Your task to perform on an android device: turn on improve location accuracy Image 0: 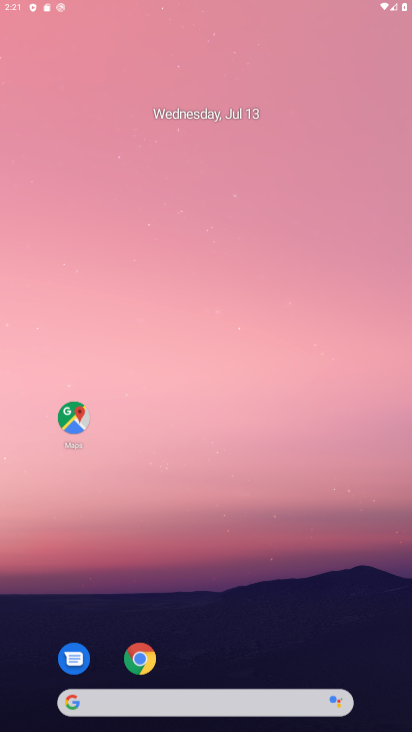
Step 0: press home button
Your task to perform on an android device: turn on improve location accuracy Image 1: 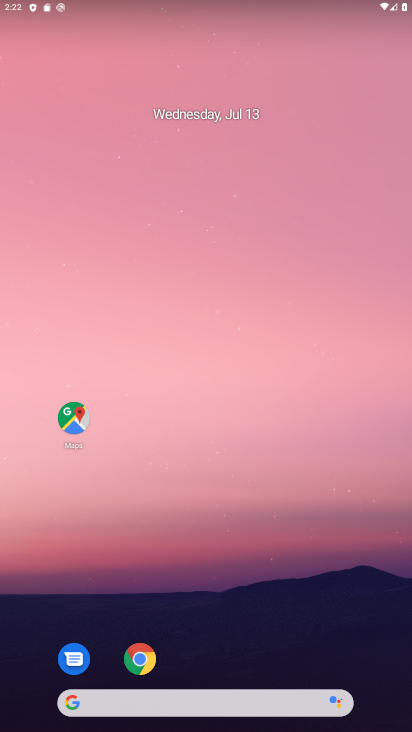
Step 1: drag from (228, 661) to (240, 160)
Your task to perform on an android device: turn on improve location accuracy Image 2: 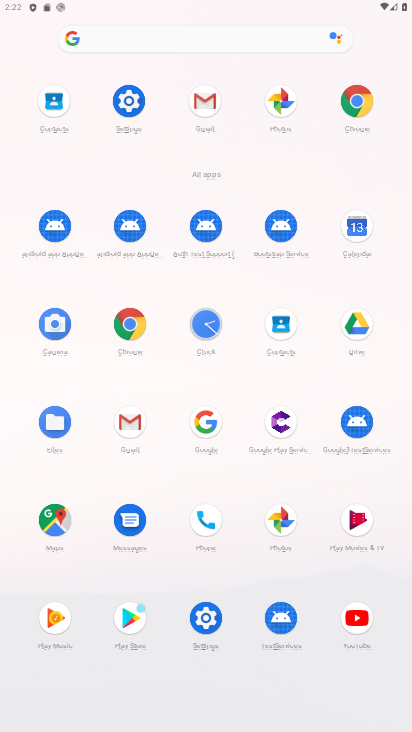
Step 2: click (130, 99)
Your task to perform on an android device: turn on improve location accuracy Image 3: 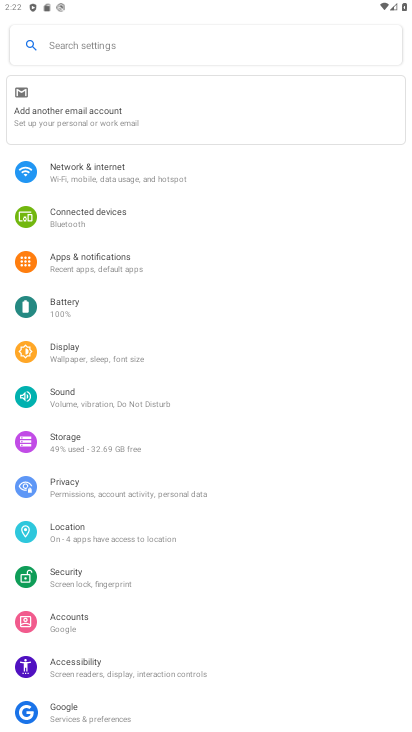
Step 3: click (95, 524)
Your task to perform on an android device: turn on improve location accuracy Image 4: 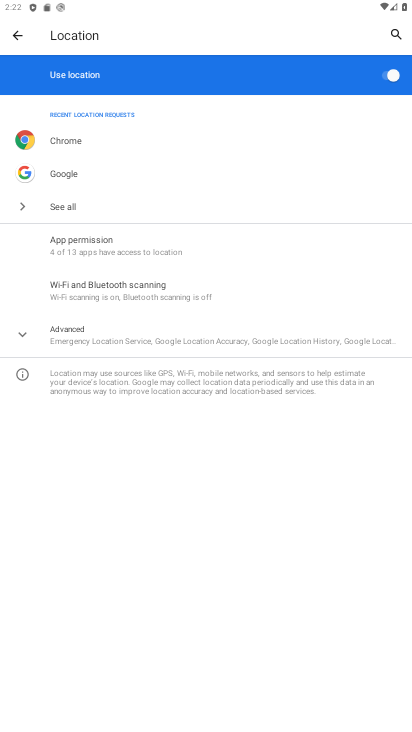
Step 4: click (25, 334)
Your task to perform on an android device: turn on improve location accuracy Image 5: 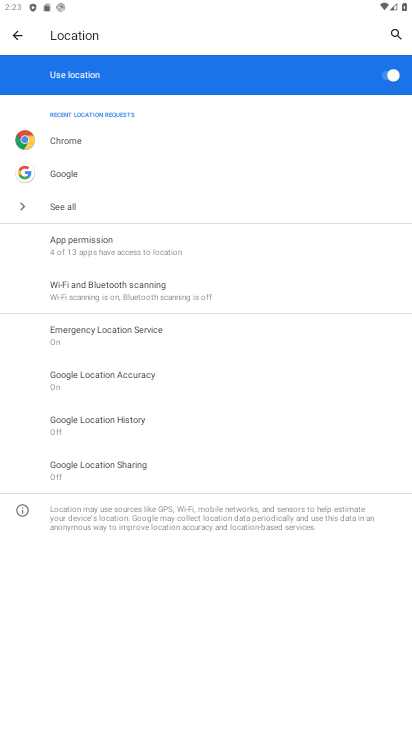
Step 5: click (132, 383)
Your task to perform on an android device: turn on improve location accuracy Image 6: 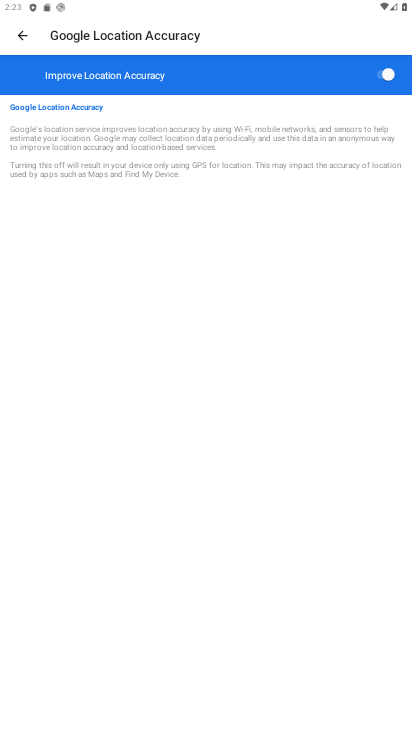
Step 6: task complete